Your task to perform on an android device: Show me popular videos on Youtube Image 0: 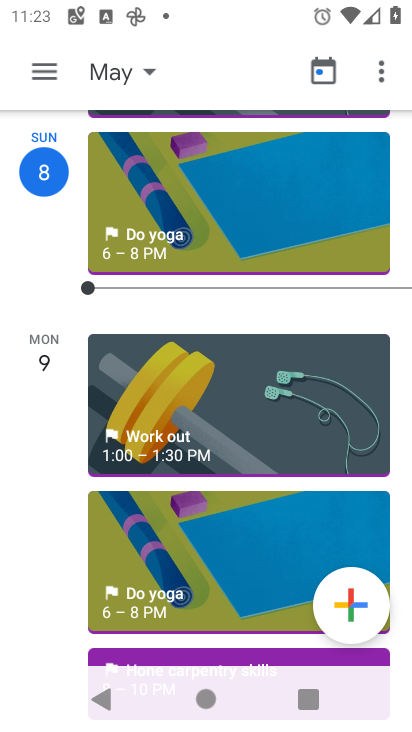
Step 0: press home button
Your task to perform on an android device: Show me popular videos on Youtube Image 1: 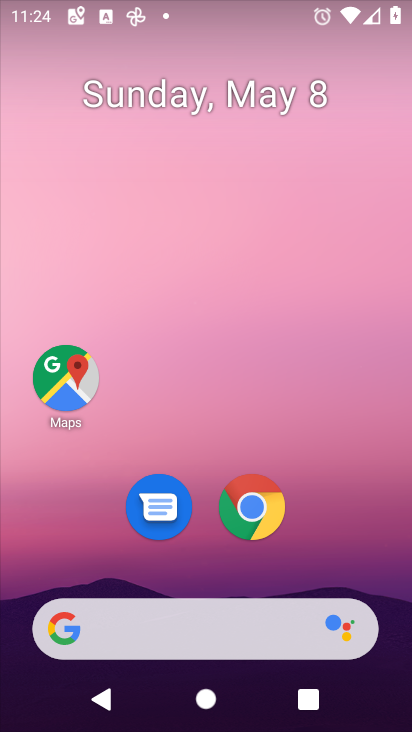
Step 1: drag from (245, 619) to (276, 12)
Your task to perform on an android device: Show me popular videos on Youtube Image 2: 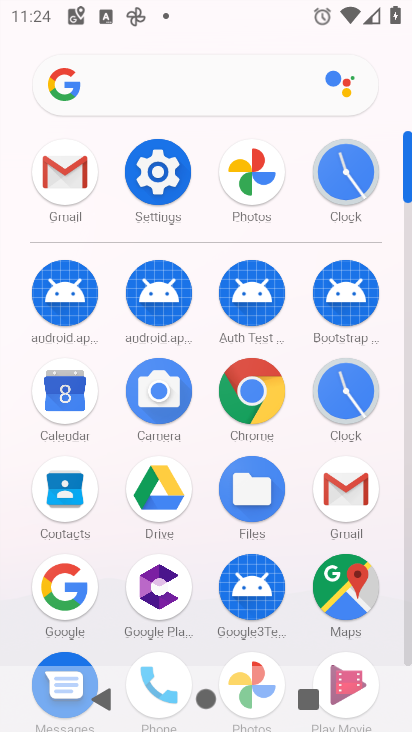
Step 2: drag from (249, 571) to (227, 170)
Your task to perform on an android device: Show me popular videos on Youtube Image 3: 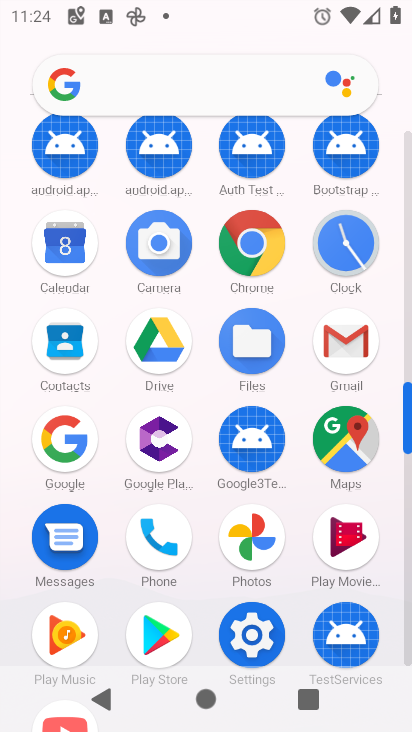
Step 3: drag from (195, 546) to (250, 5)
Your task to perform on an android device: Show me popular videos on Youtube Image 4: 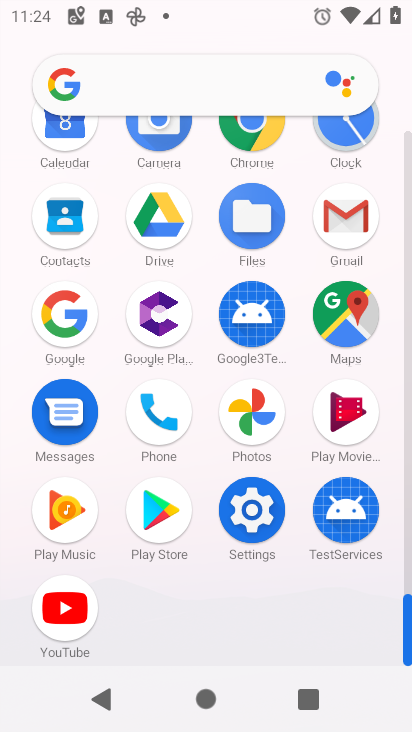
Step 4: click (75, 622)
Your task to perform on an android device: Show me popular videos on Youtube Image 5: 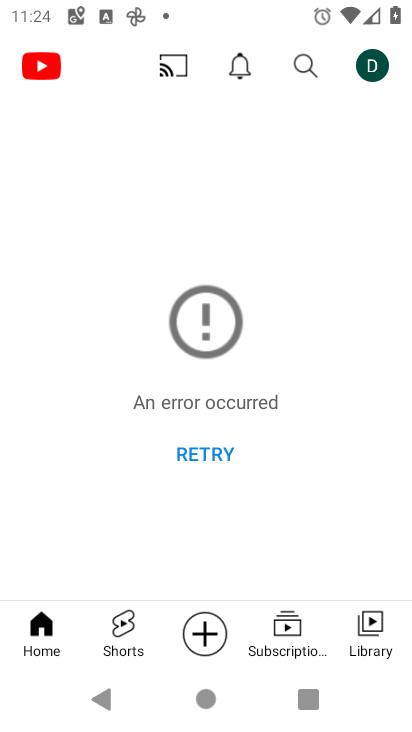
Step 5: click (216, 453)
Your task to perform on an android device: Show me popular videos on Youtube Image 6: 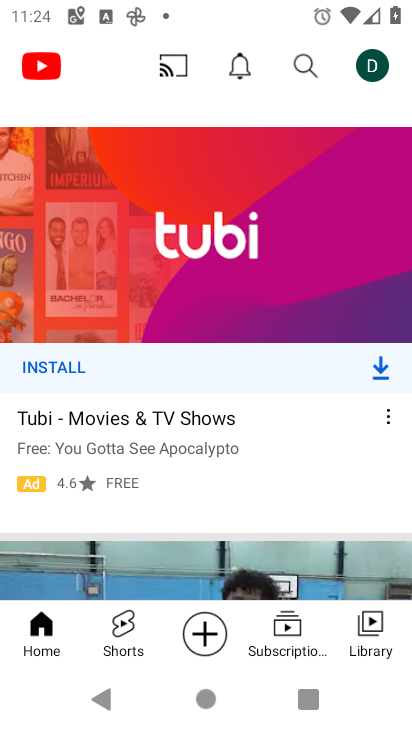
Step 6: task complete